Your task to perform on an android device: Go to CNN.com Image 0: 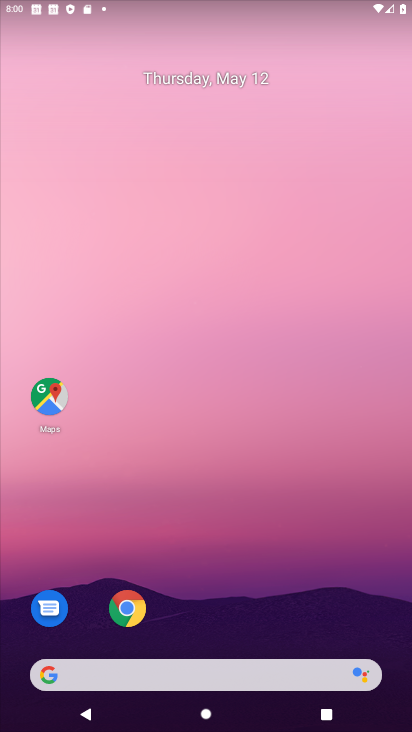
Step 0: click (130, 611)
Your task to perform on an android device: Go to CNN.com Image 1: 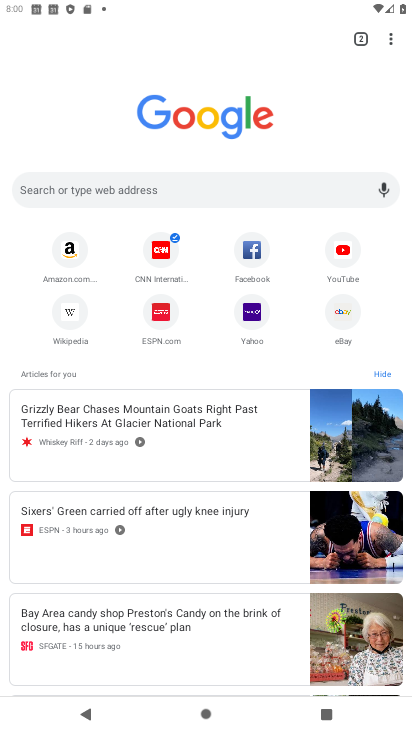
Step 1: click (159, 260)
Your task to perform on an android device: Go to CNN.com Image 2: 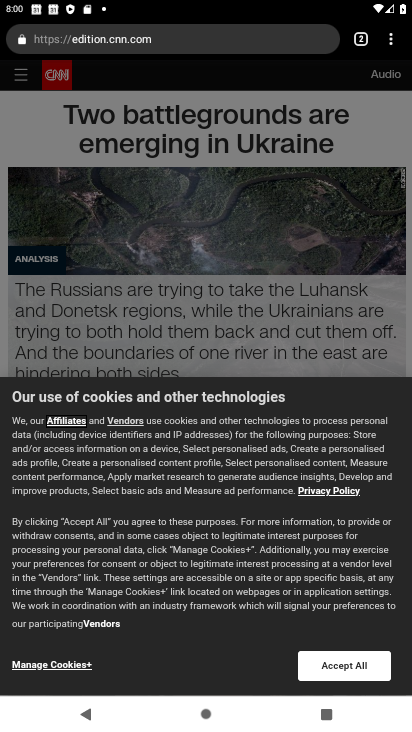
Step 2: task complete